Your task to perform on an android device: toggle improve location accuracy Image 0: 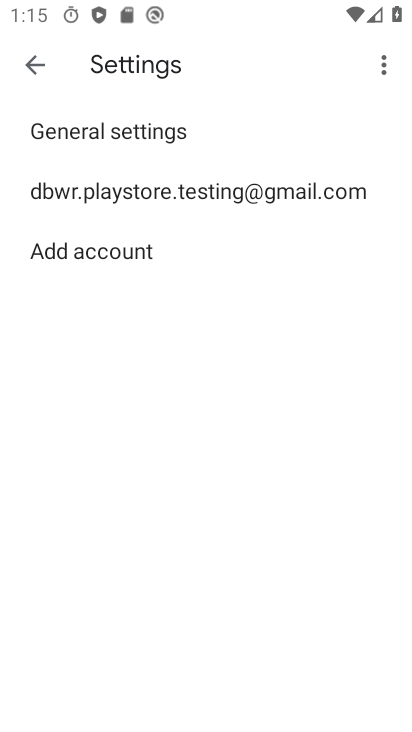
Step 0: press home button
Your task to perform on an android device: toggle improve location accuracy Image 1: 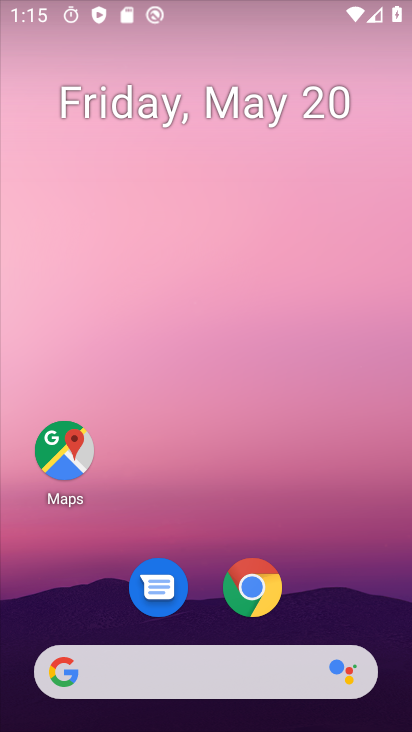
Step 1: drag from (368, 566) to (322, 127)
Your task to perform on an android device: toggle improve location accuracy Image 2: 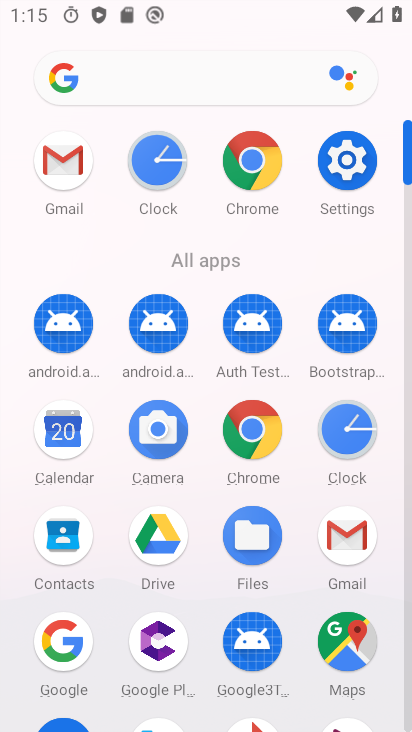
Step 2: click (364, 152)
Your task to perform on an android device: toggle improve location accuracy Image 3: 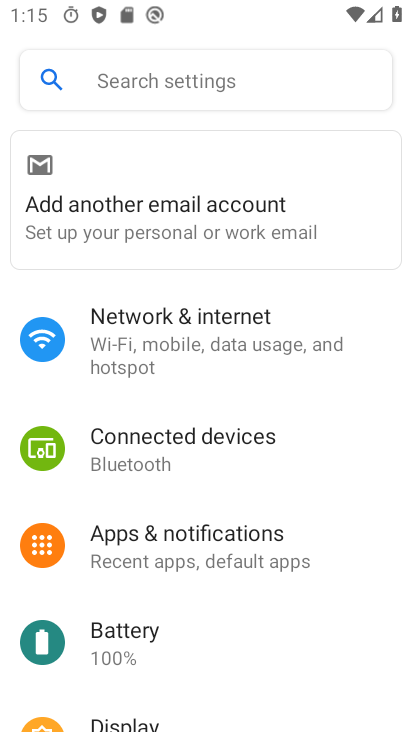
Step 3: drag from (211, 565) to (292, 211)
Your task to perform on an android device: toggle improve location accuracy Image 4: 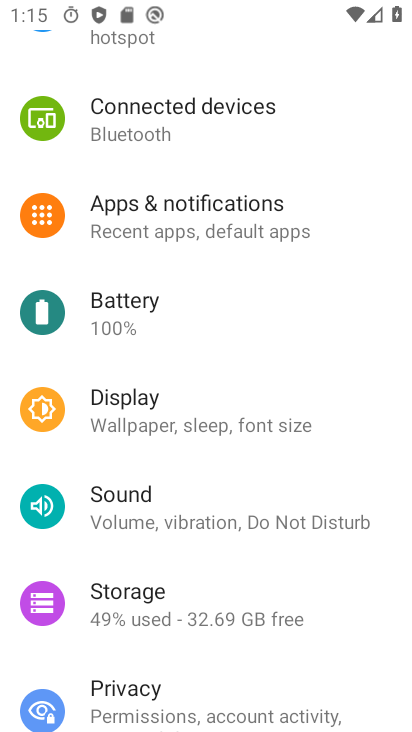
Step 4: drag from (233, 590) to (292, 263)
Your task to perform on an android device: toggle improve location accuracy Image 5: 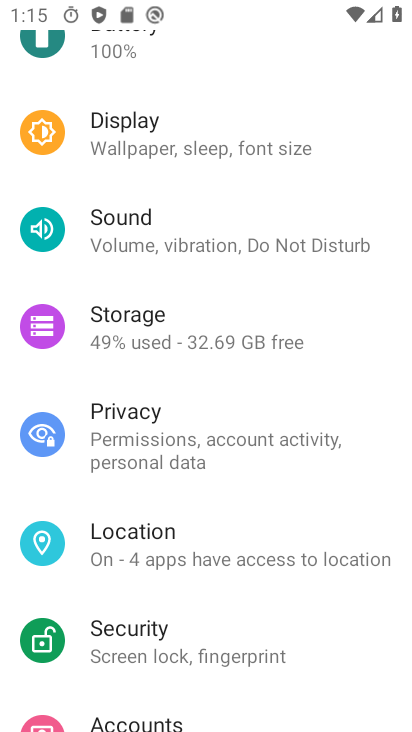
Step 5: click (212, 545)
Your task to perform on an android device: toggle improve location accuracy Image 6: 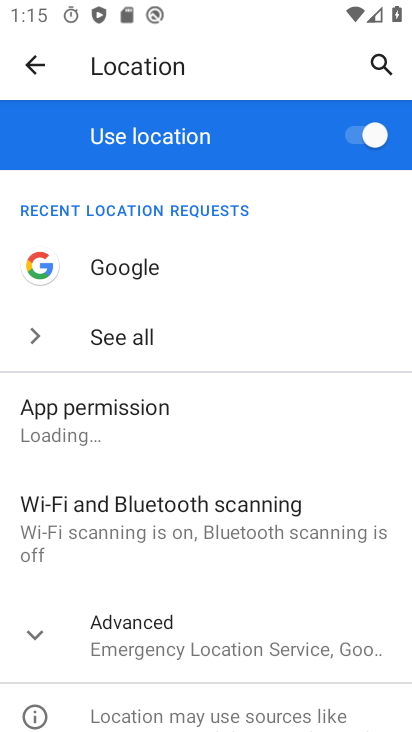
Step 6: drag from (325, 617) to (354, 288)
Your task to perform on an android device: toggle improve location accuracy Image 7: 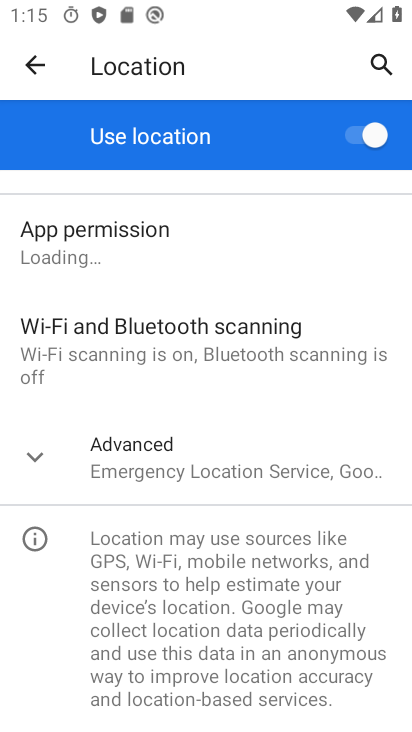
Step 7: click (190, 468)
Your task to perform on an android device: toggle improve location accuracy Image 8: 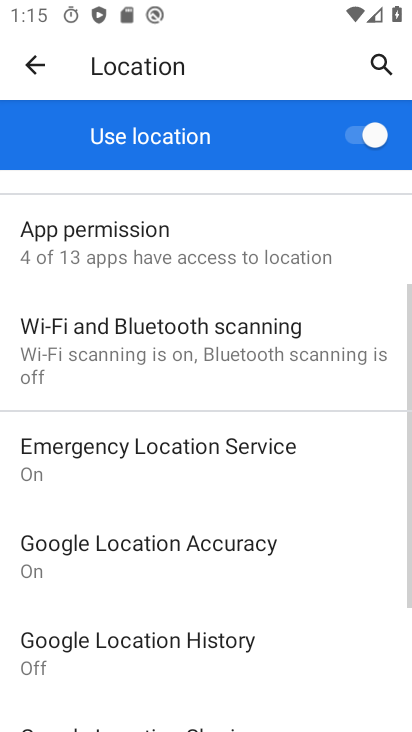
Step 8: drag from (287, 636) to (338, 383)
Your task to perform on an android device: toggle improve location accuracy Image 9: 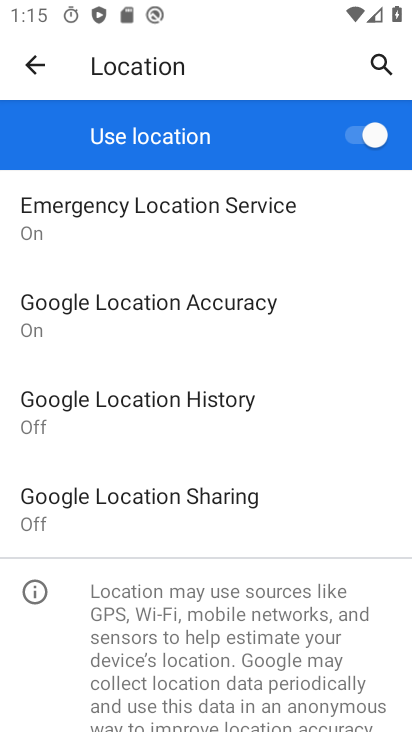
Step 9: click (225, 317)
Your task to perform on an android device: toggle improve location accuracy Image 10: 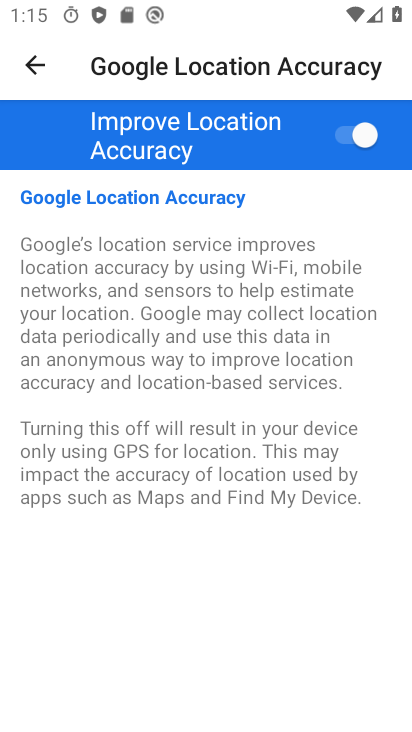
Step 10: click (350, 137)
Your task to perform on an android device: toggle improve location accuracy Image 11: 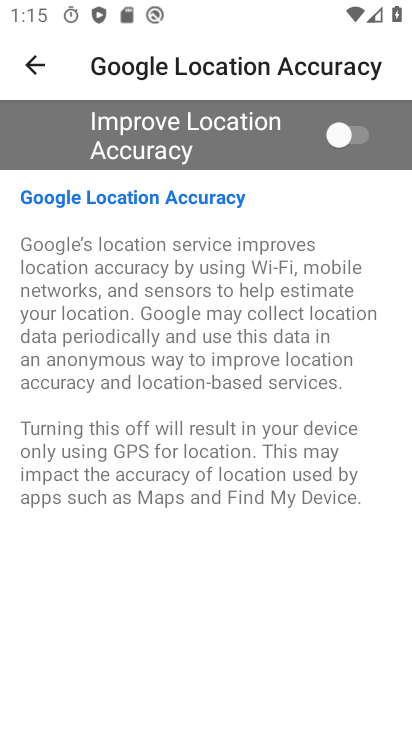
Step 11: task complete